Your task to perform on an android device: Go to ESPN.com Image 0: 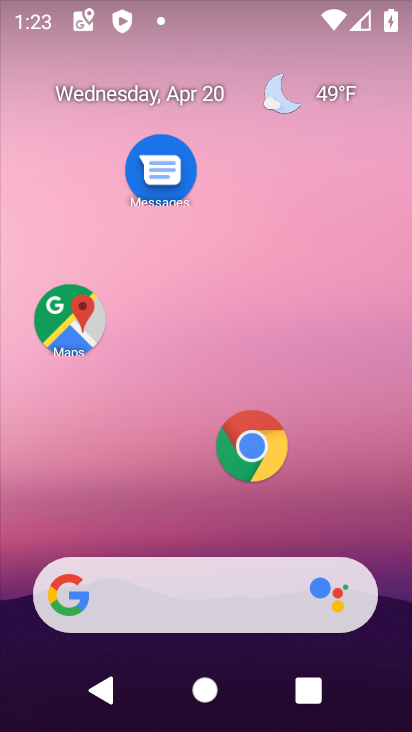
Step 0: press home button
Your task to perform on an android device: Go to ESPN.com Image 1: 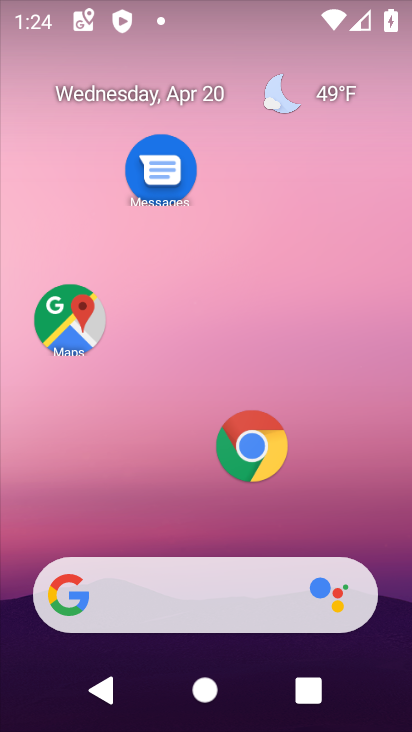
Step 1: click (251, 440)
Your task to perform on an android device: Go to ESPN.com Image 2: 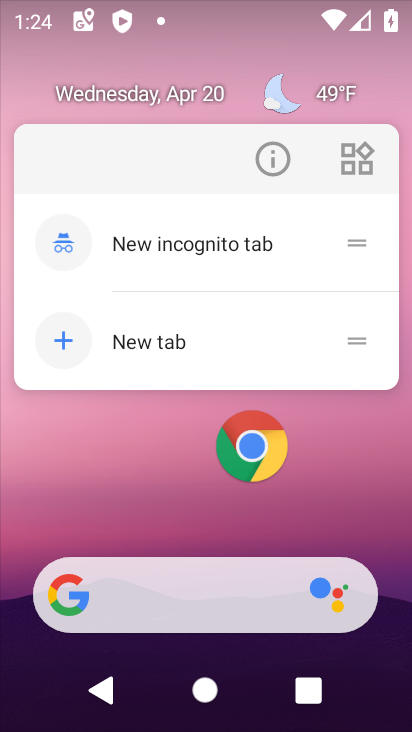
Step 2: click (248, 442)
Your task to perform on an android device: Go to ESPN.com Image 3: 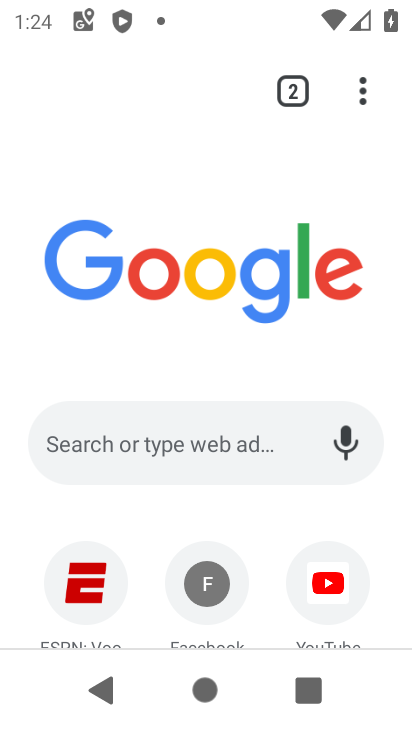
Step 3: drag from (147, 527) to (170, 306)
Your task to perform on an android device: Go to ESPN.com Image 4: 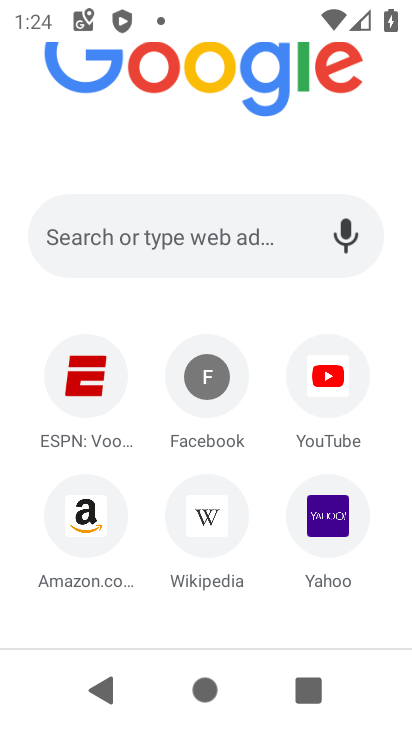
Step 4: click (86, 368)
Your task to perform on an android device: Go to ESPN.com Image 5: 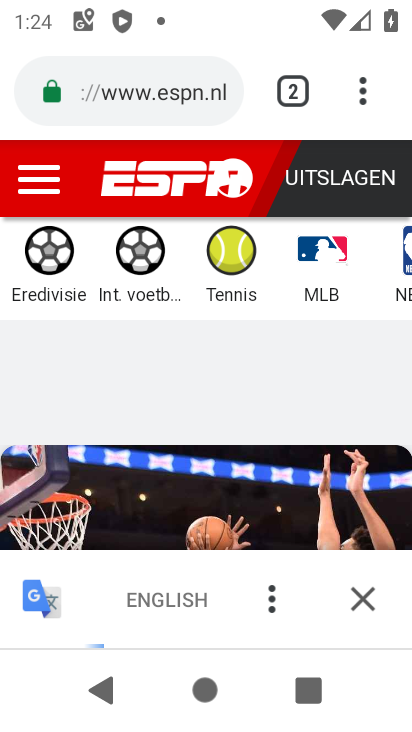
Step 5: click (353, 597)
Your task to perform on an android device: Go to ESPN.com Image 6: 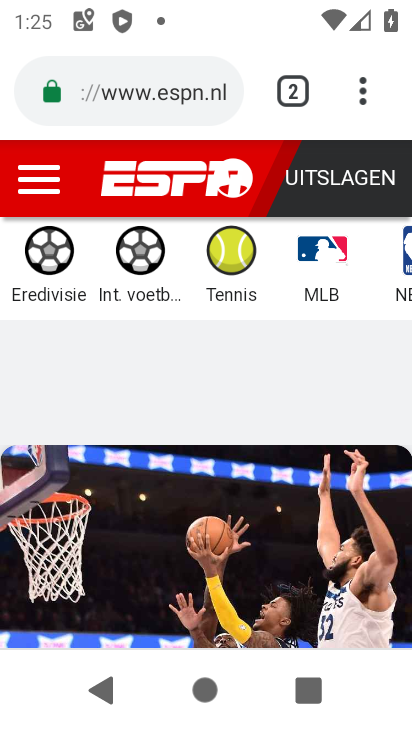
Step 6: task complete